Your task to perform on an android device: Go to settings Image 0: 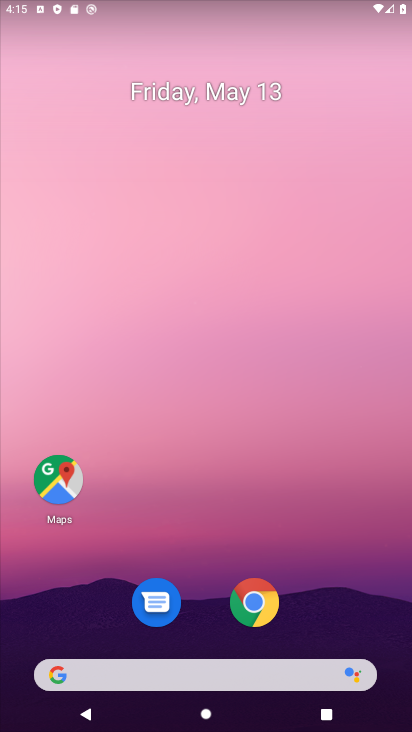
Step 0: drag from (220, 663) to (245, 190)
Your task to perform on an android device: Go to settings Image 1: 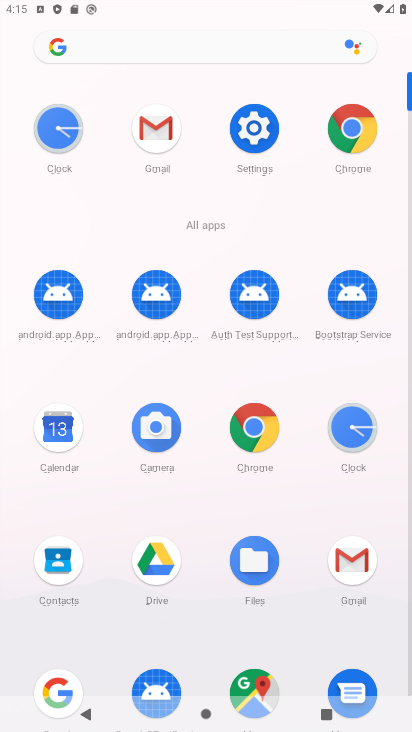
Step 1: click (252, 130)
Your task to perform on an android device: Go to settings Image 2: 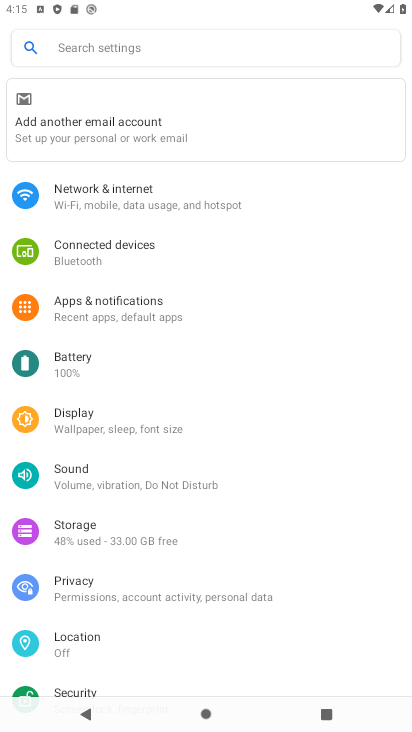
Step 2: task complete